Your task to perform on an android device: Go to battery settings Image 0: 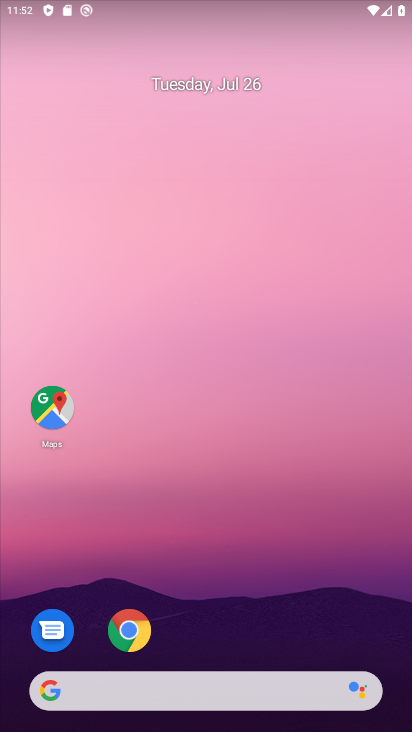
Step 0: drag from (241, 583) to (230, 64)
Your task to perform on an android device: Go to battery settings Image 1: 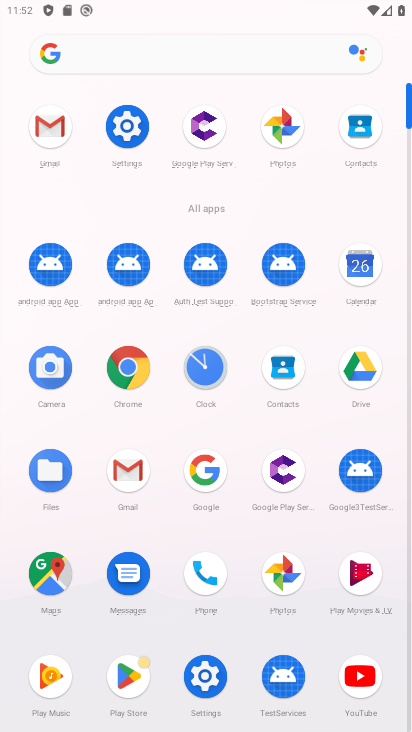
Step 1: click (123, 112)
Your task to perform on an android device: Go to battery settings Image 2: 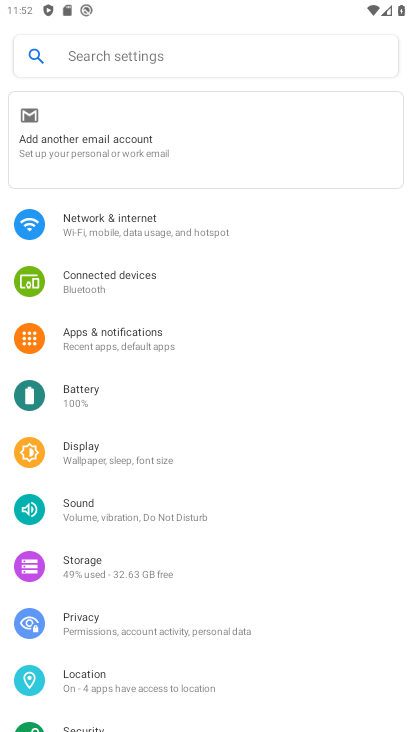
Step 2: click (96, 394)
Your task to perform on an android device: Go to battery settings Image 3: 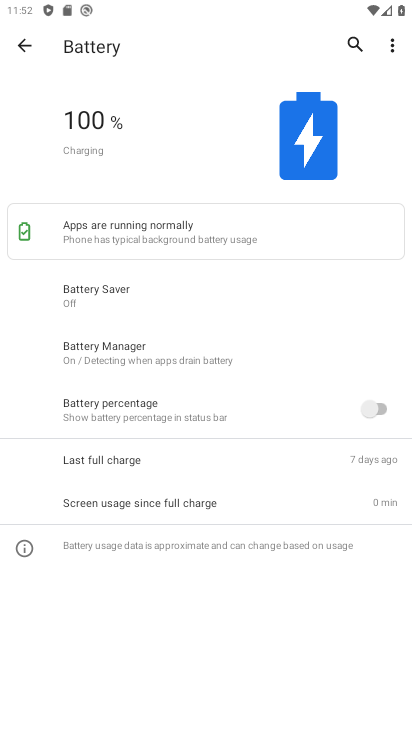
Step 3: task complete